Your task to perform on an android device: Search for the new iphone 13 pro on Etsy. Image 0: 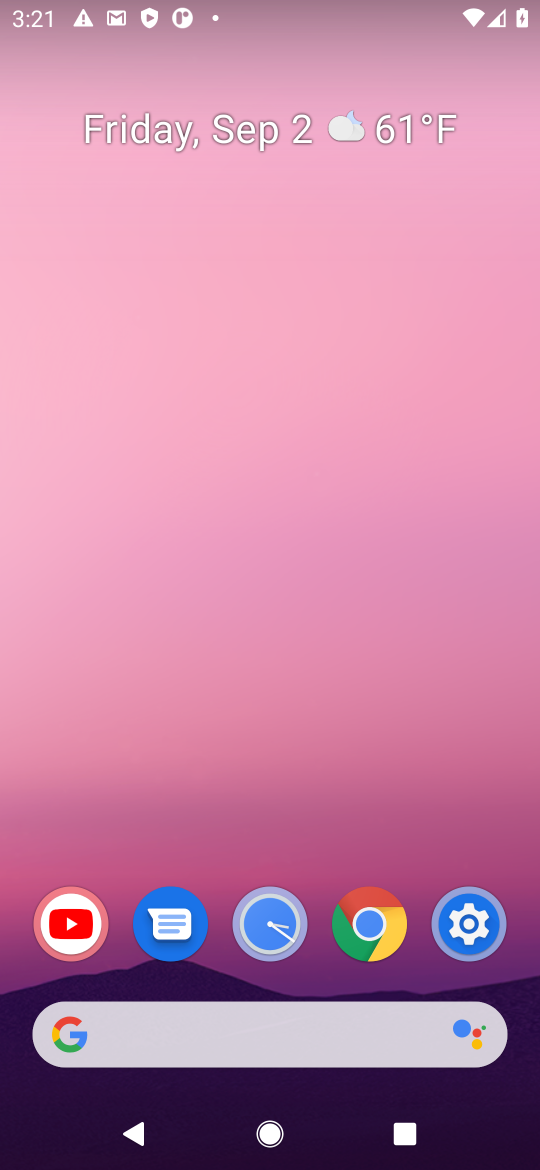
Step 0: press home button
Your task to perform on an android device: Search for the new iphone 13 pro on Etsy. Image 1: 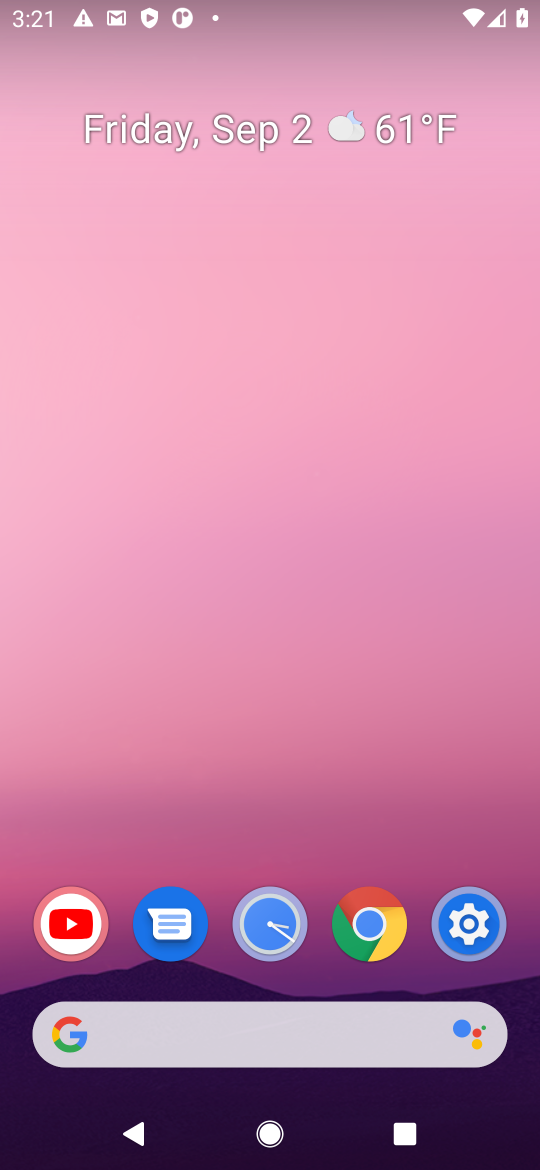
Step 1: click (354, 1033)
Your task to perform on an android device: Search for the new iphone 13 pro on Etsy. Image 2: 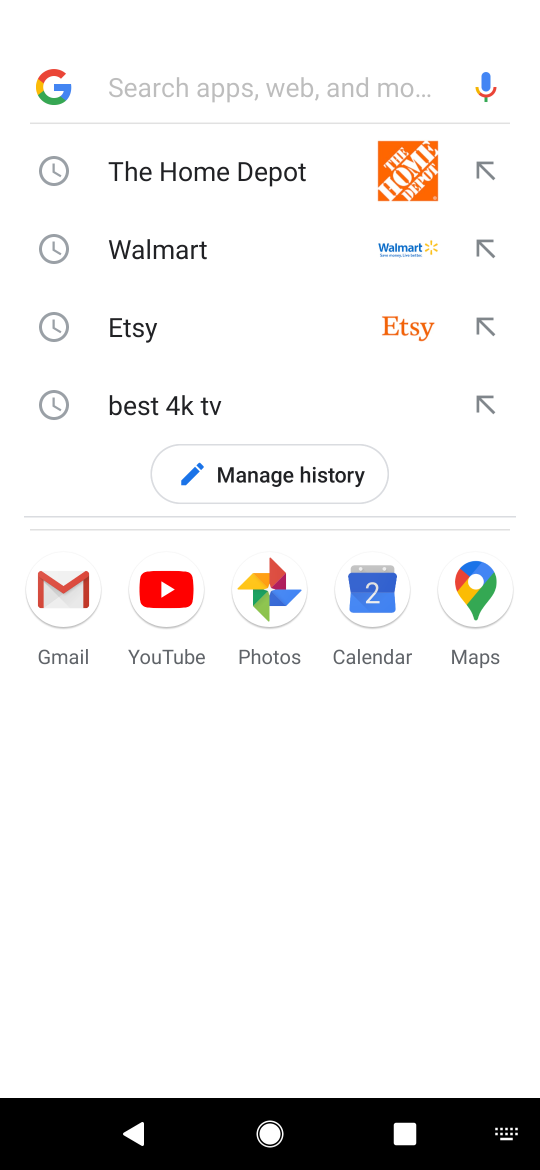
Step 2: press enter
Your task to perform on an android device: Search for the new iphone 13 pro on Etsy. Image 3: 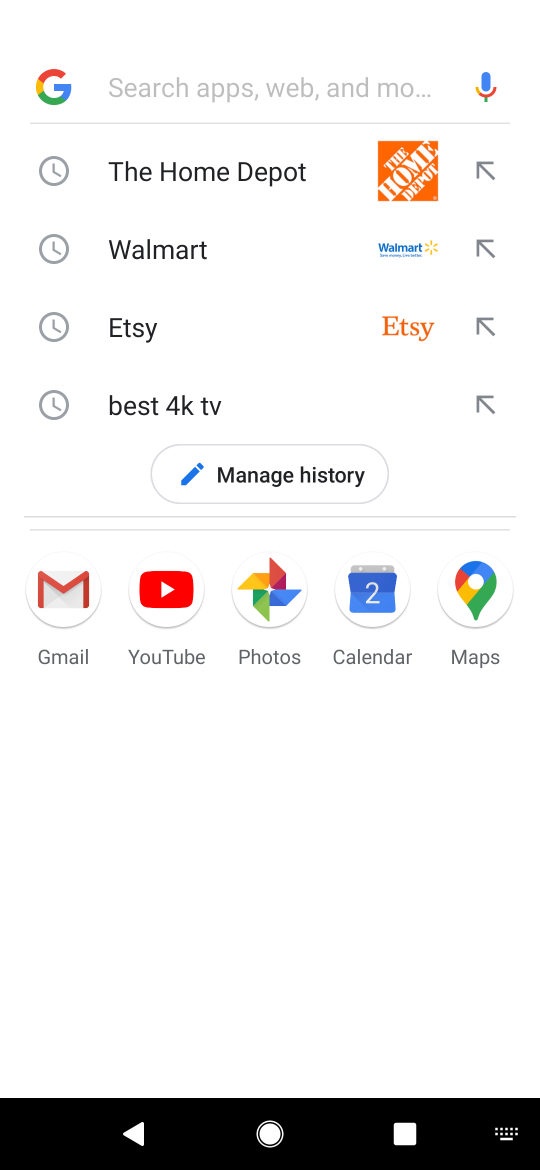
Step 3: type "etsy"
Your task to perform on an android device: Search for the new iphone 13 pro on Etsy. Image 4: 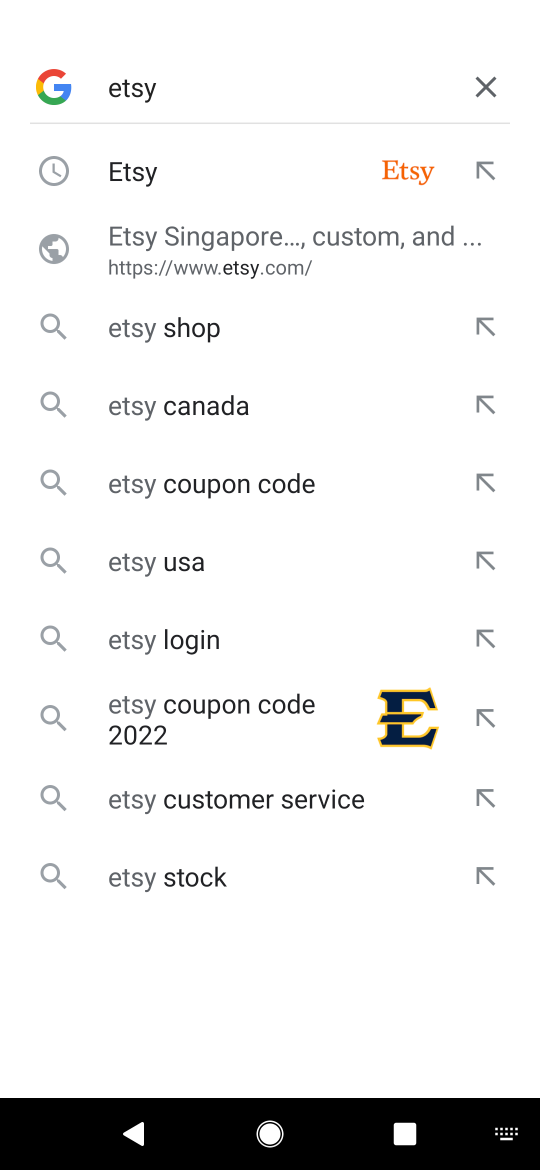
Step 4: click (222, 172)
Your task to perform on an android device: Search for the new iphone 13 pro on Etsy. Image 5: 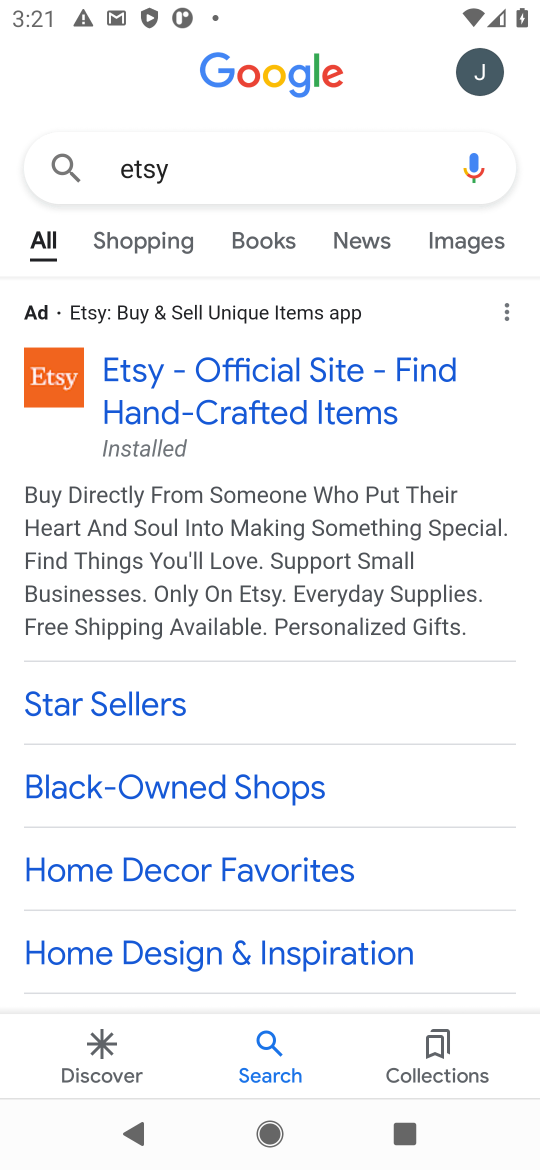
Step 5: click (232, 410)
Your task to perform on an android device: Search for the new iphone 13 pro on Etsy. Image 6: 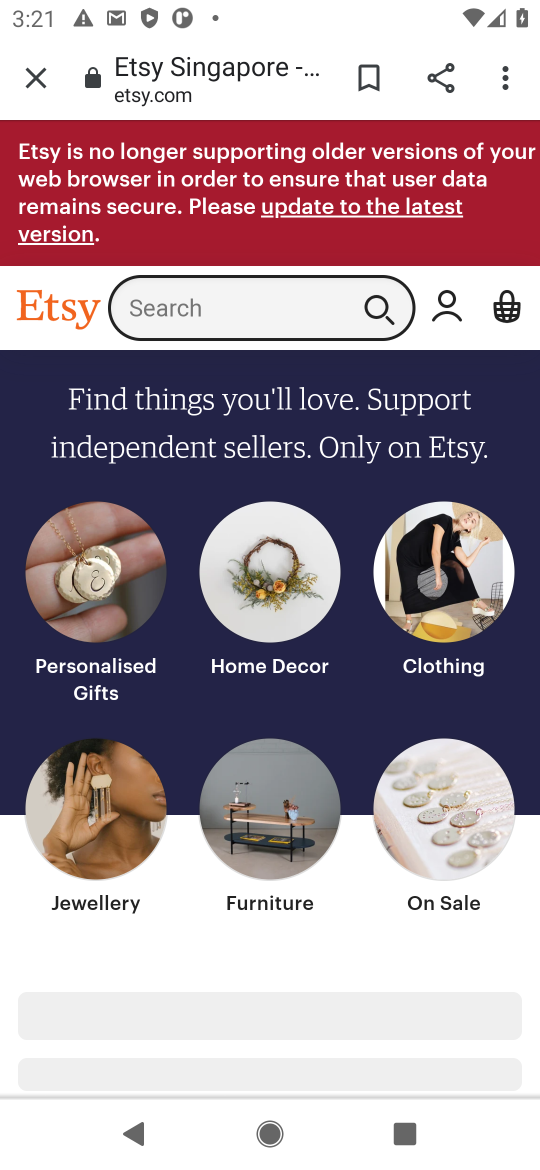
Step 6: click (225, 300)
Your task to perform on an android device: Search for the new iphone 13 pro on Etsy. Image 7: 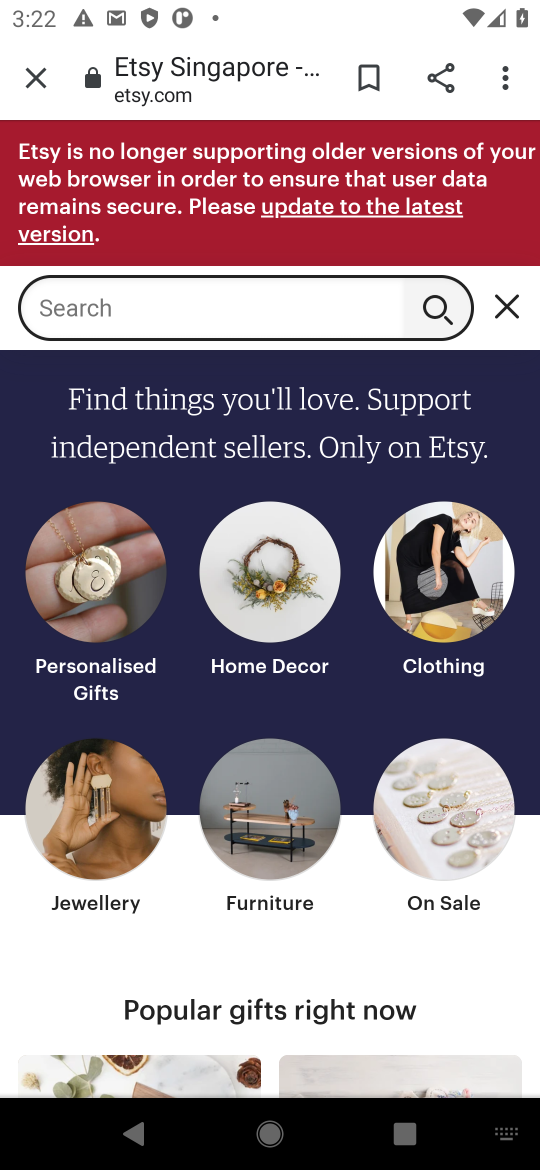
Step 7: type "i phone 13 pro"
Your task to perform on an android device: Search for the new iphone 13 pro on Etsy. Image 8: 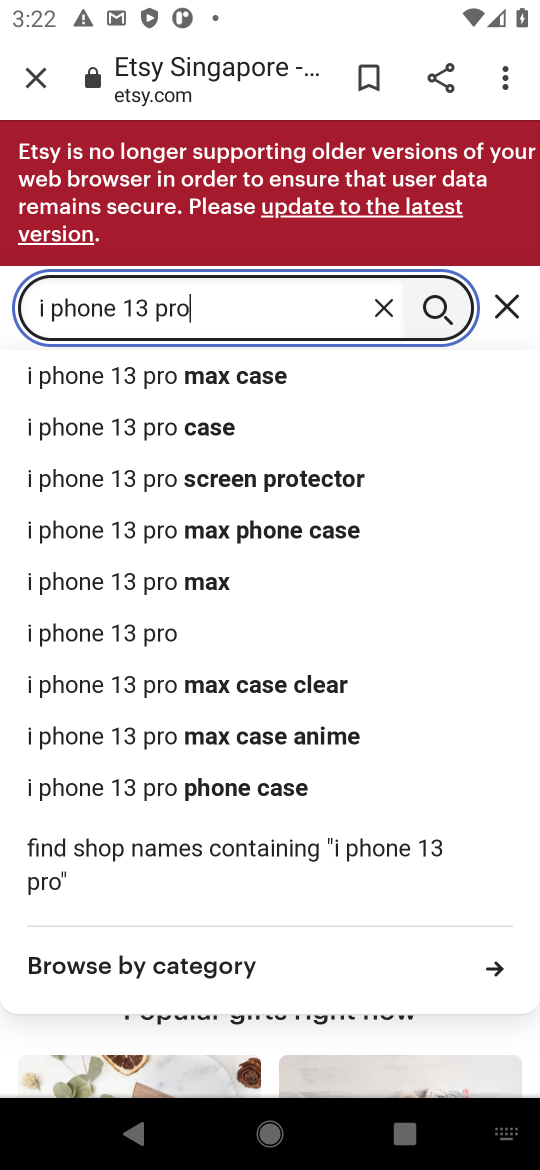
Step 8: click (430, 296)
Your task to perform on an android device: Search for the new iphone 13 pro on Etsy. Image 9: 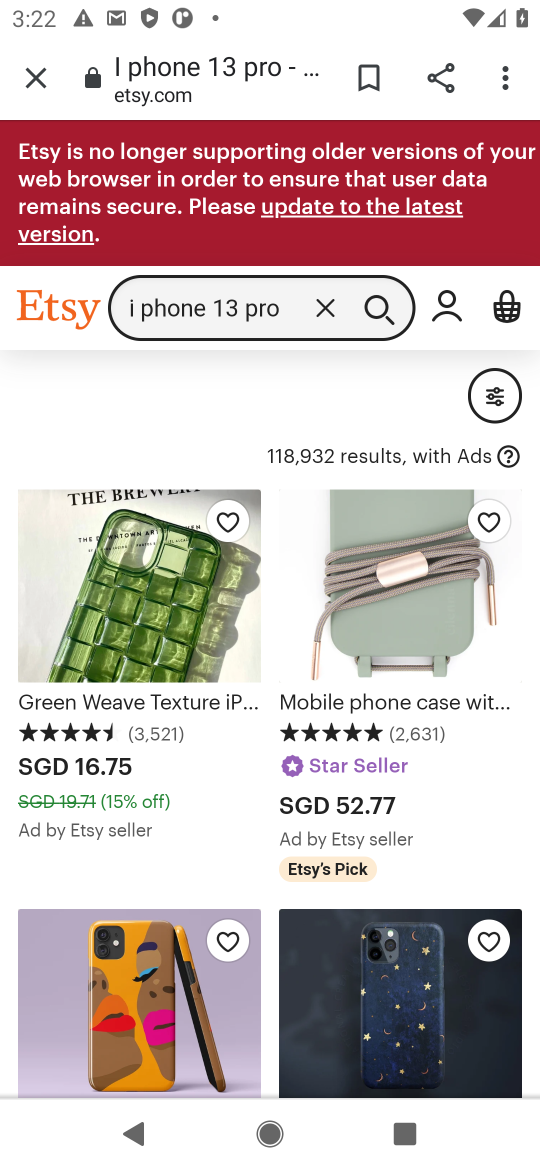
Step 9: task complete